Your task to perform on an android device: Open Google Chrome and click the shortcut for Amazon.com Image 0: 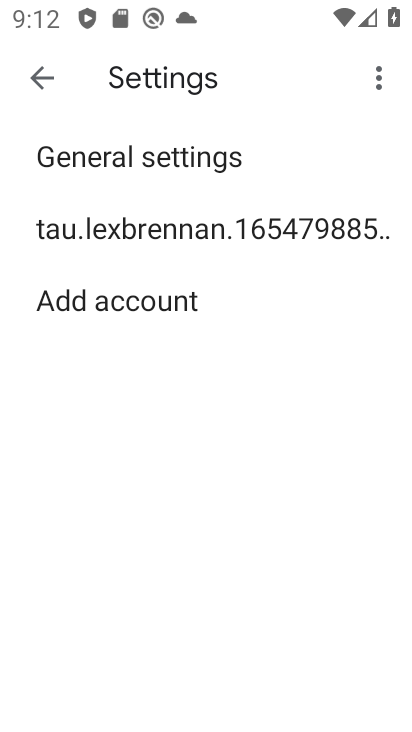
Step 0: press home button
Your task to perform on an android device: Open Google Chrome and click the shortcut for Amazon.com Image 1: 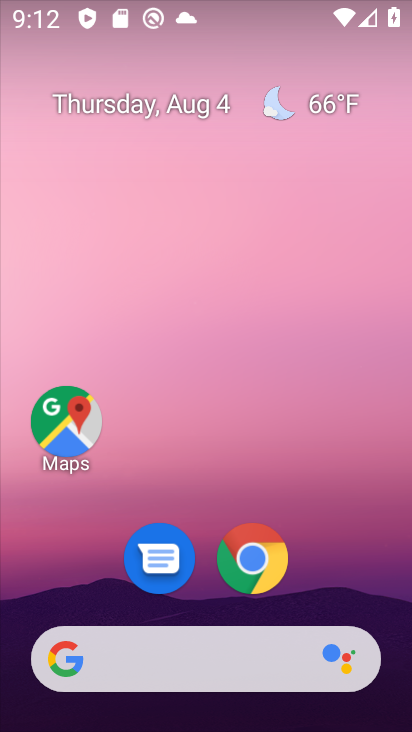
Step 1: drag from (334, 535) to (374, 50)
Your task to perform on an android device: Open Google Chrome and click the shortcut for Amazon.com Image 2: 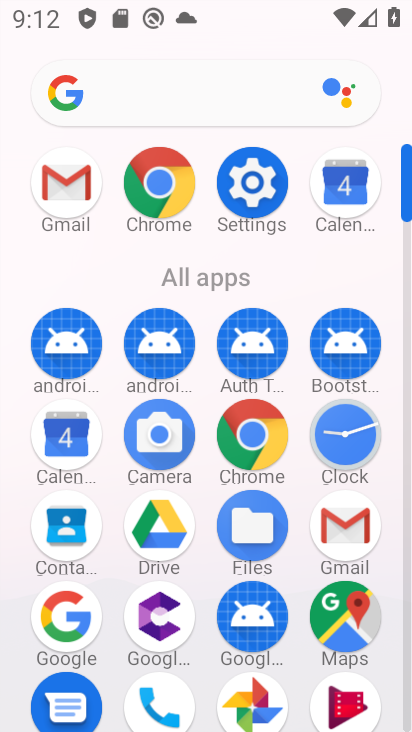
Step 2: click (253, 432)
Your task to perform on an android device: Open Google Chrome and click the shortcut for Amazon.com Image 3: 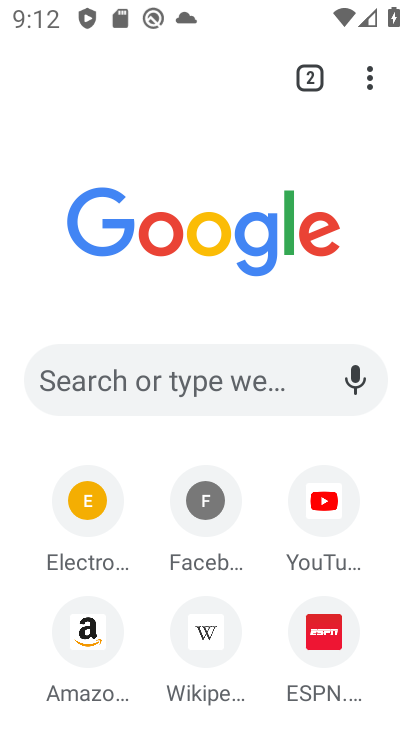
Step 3: click (96, 633)
Your task to perform on an android device: Open Google Chrome and click the shortcut for Amazon.com Image 4: 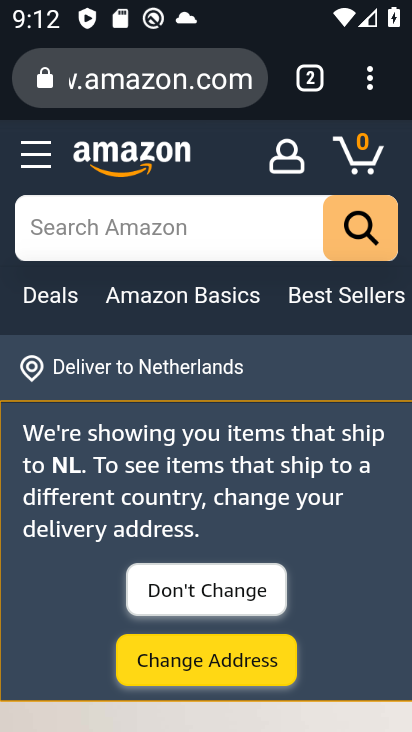
Step 4: task complete